Your task to perform on an android device: turn pop-ups off in chrome Image 0: 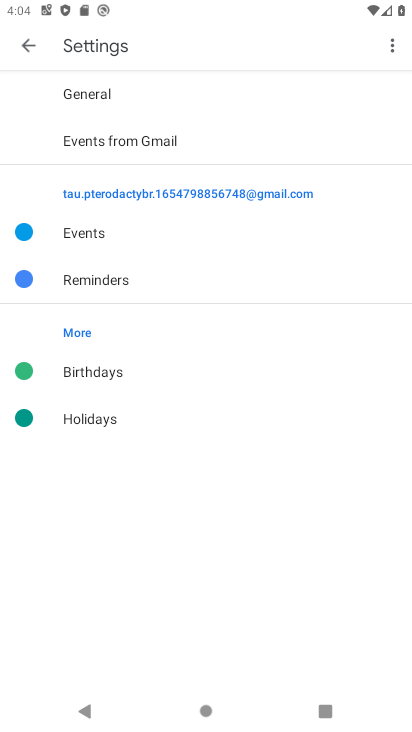
Step 0: press home button
Your task to perform on an android device: turn pop-ups off in chrome Image 1: 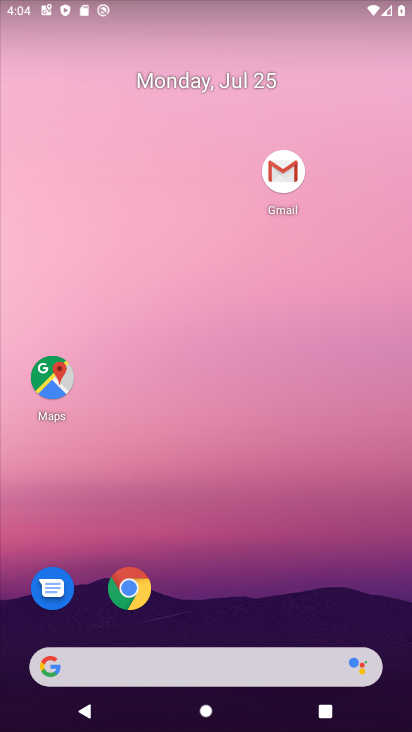
Step 1: drag from (298, 579) to (178, 5)
Your task to perform on an android device: turn pop-ups off in chrome Image 2: 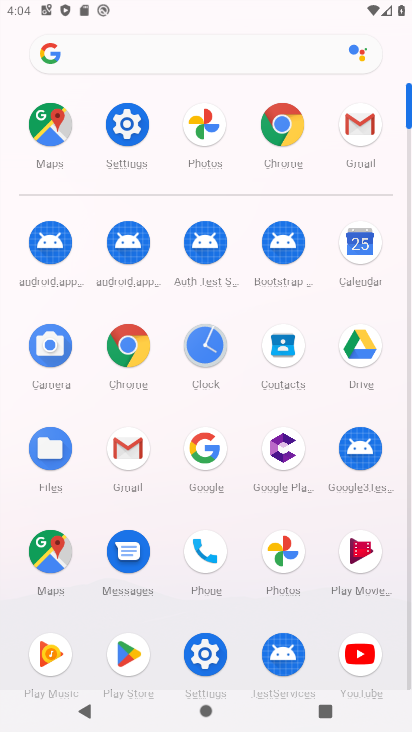
Step 2: click (278, 136)
Your task to perform on an android device: turn pop-ups off in chrome Image 3: 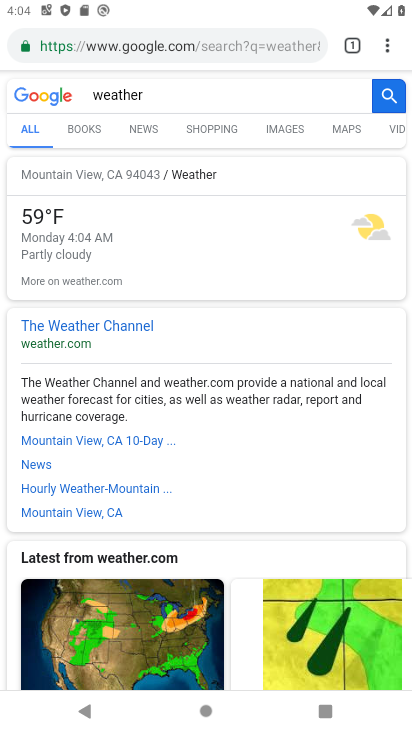
Step 3: drag from (394, 49) to (253, 500)
Your task to perform on an android device: turn pop-ups off in chrome Image 4: 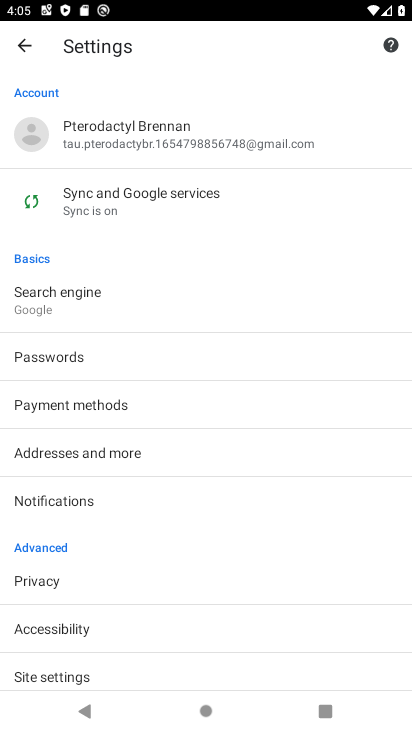
Step 4: drag from (229, 665) to (246, 273)
Your task to perform on an android device: turn pop-ups off in chrome Image 5: 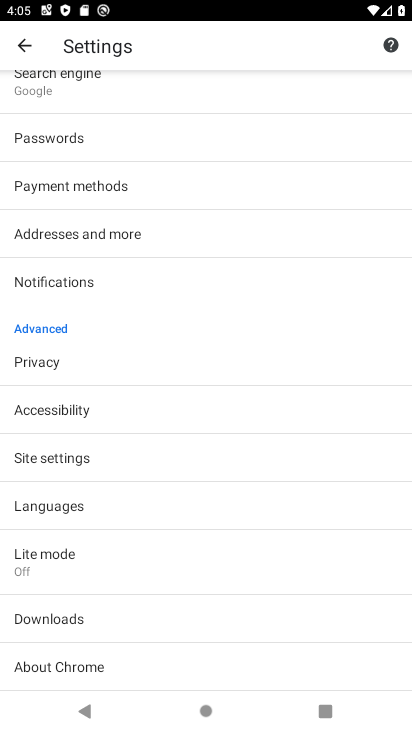
Step 5: click (75, 457)
Your task to perform on an android device: turn pop-ups off in chrome Image 6: 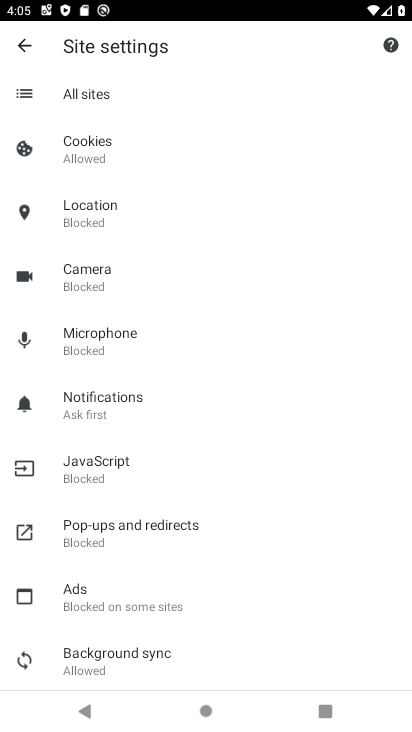
Step 6: click (161, 540)
Your task to perform on an android device: turn pop-ups off in chrome Image 7: 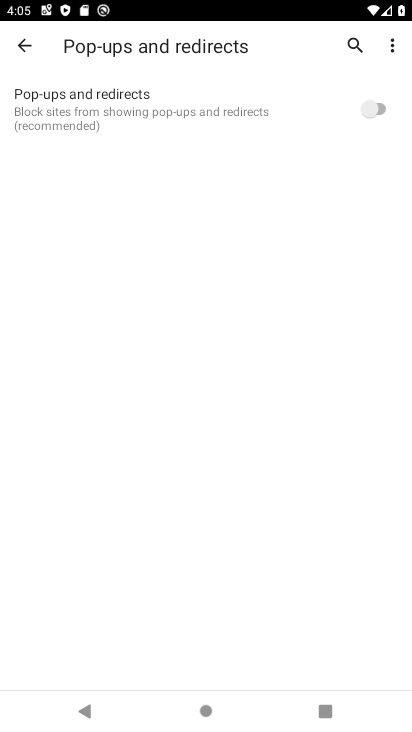
Step 7: task complete